Your task to perform on an android device: Go to Maps Image 0: 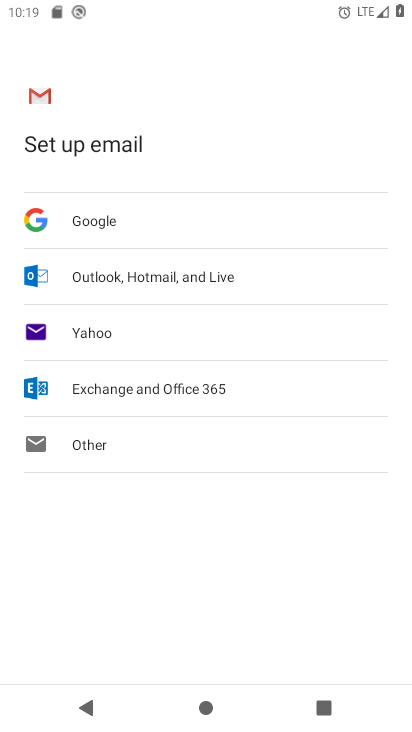
Step 0: press home button
Your task to perform on an android device: Go to Maps Image 1: 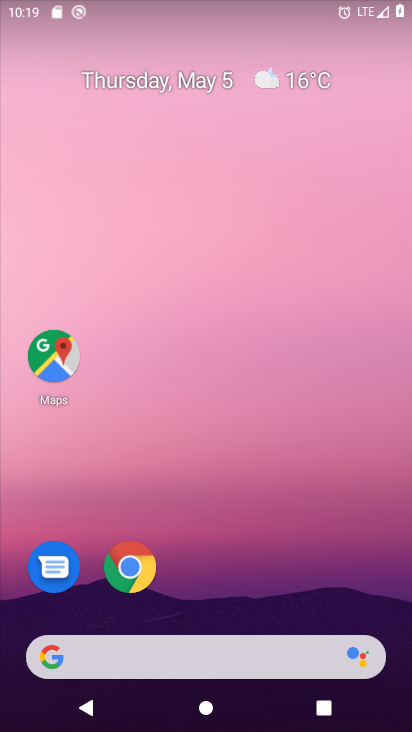
Step 1: drag from (271, 542) to (244, 17)
Your task to perform on an android device: Go to Maps Image 2: 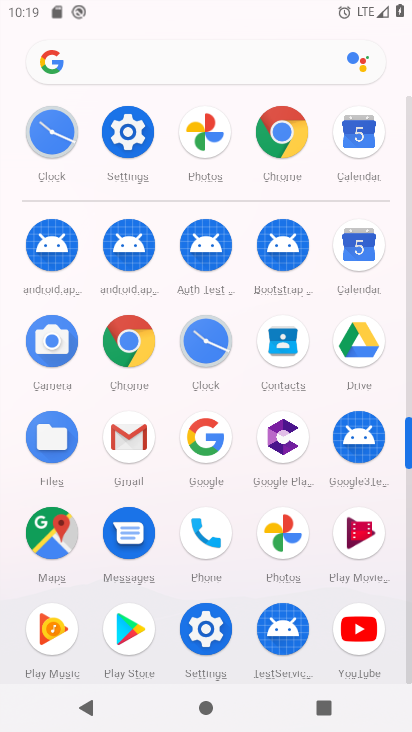
Step 2: click (54, 523)
Your task to perform on an android device: Go to Maps Image 3: 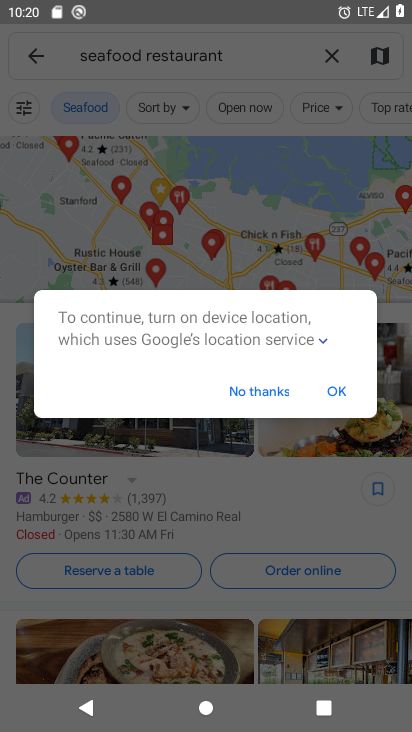
Step 3: click (337, 388)
Your task to perform on an android device: Go to Maps Image 4: 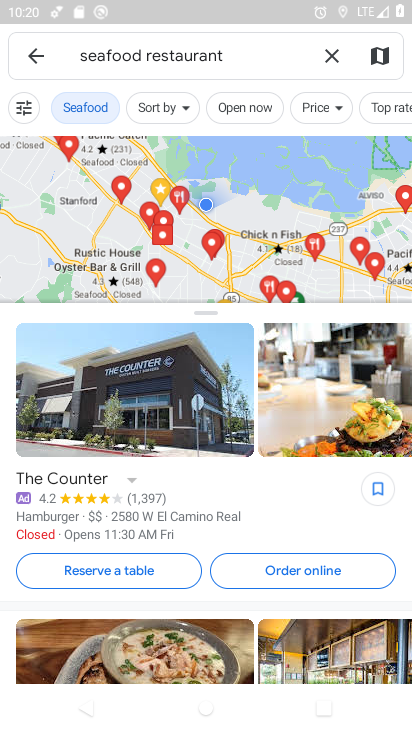
Step 4: click (326, 50)
Your task to perform on an android device: Go to Maps Image 5: 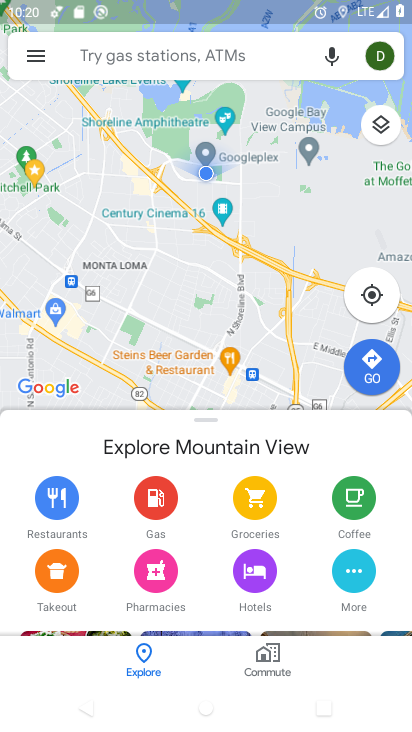
Step 5: task complete